Your task to perform on an android device: Open display settings Image 0: 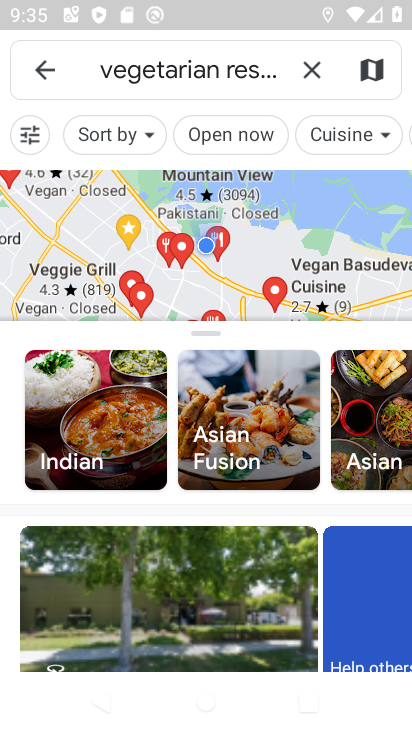
Step 0: press back button
Your task to perform on an android device: Open display settings Image 1: 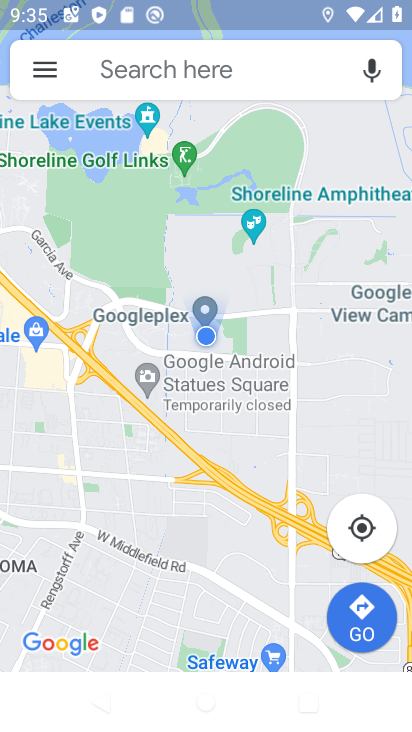
Step 1: press home button
Your task to perform on an android device: Open display settings Image 2: 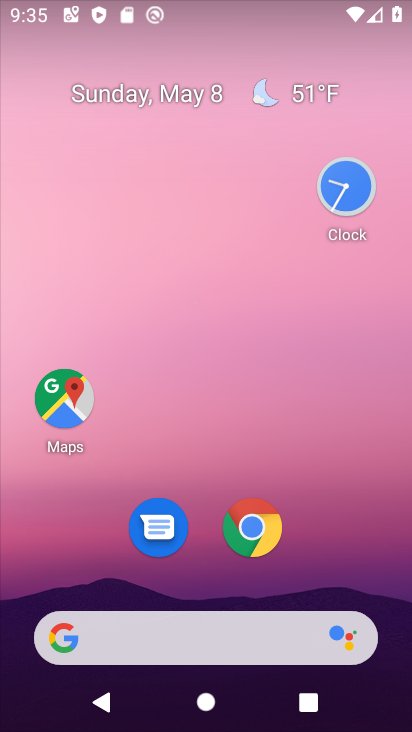
Step 2: drag from (194, 684) to (210, 19)
Your task to perform on an android device: Open display settings Image 3: 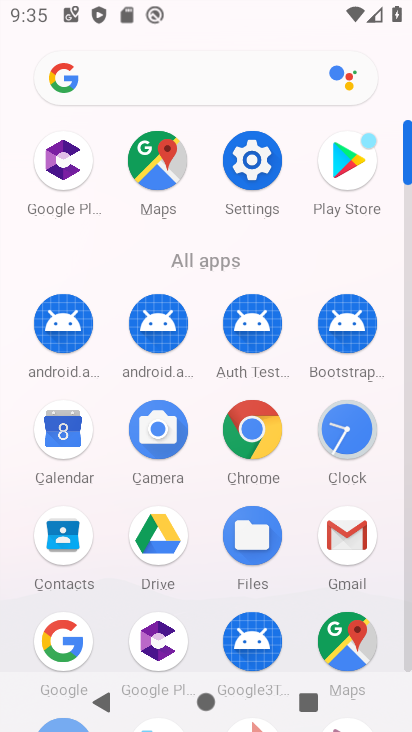
Step 3: click (254, 158)
Your task to perform on an android device: Open display settings Image 4: 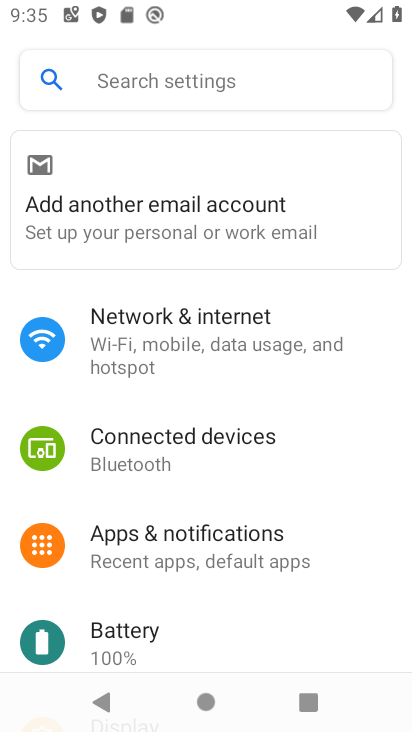
Step 4: drag from (240, 488) to (223, 208)
Your task to perform on an android device: Open display settings Image 5: 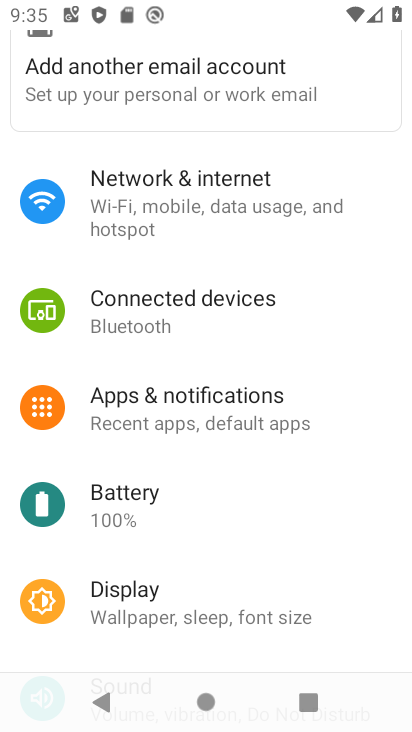
Step 5: click (239, 590)
Your task to perform on an android device: Open display settings Image 6: 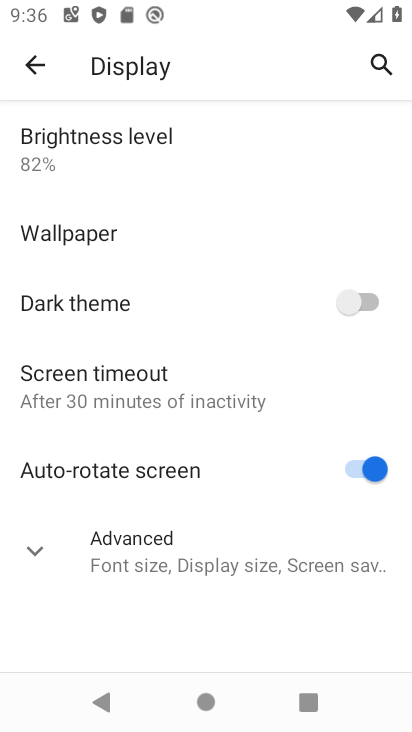
Step 6: task complete